Your task to perform on an android device: Empty the shopping cart on ebay.com. Image 0: 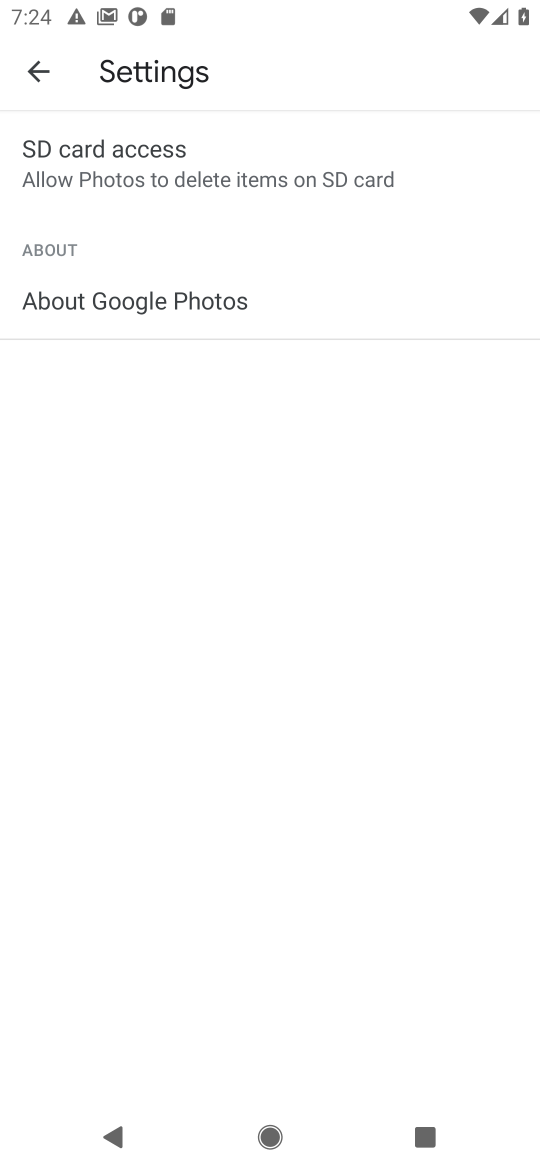
Step 0: press home button
Your task to perform on an android device: Empty the shopping cart on ebay.com. Image 1: 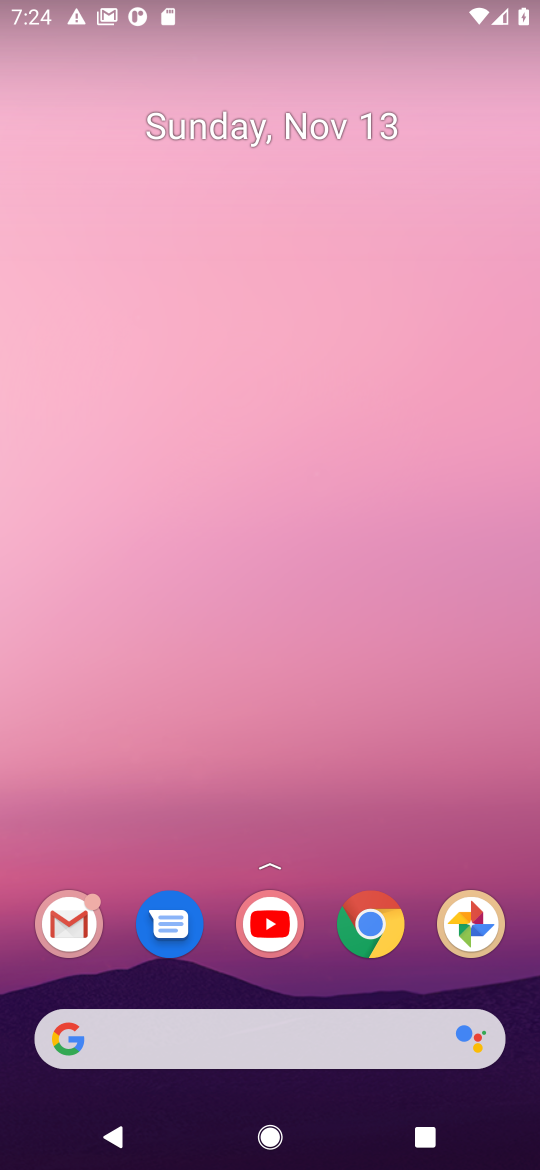
Step 1: click (374, 931)
Your task to perform on an android device: Empty the shopping cart on ebay.com. Image 2: 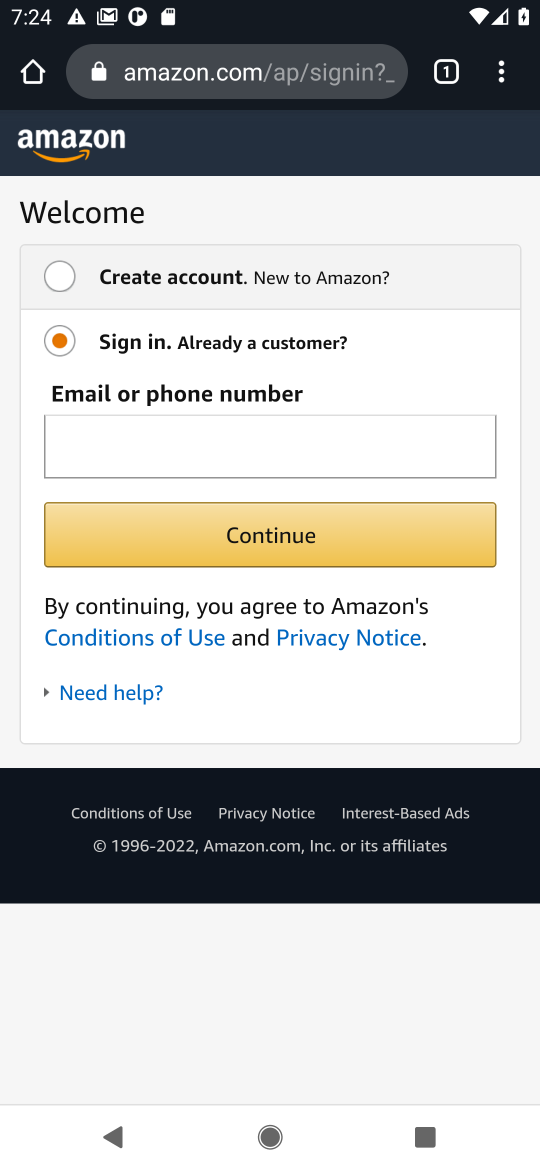
Step 2: click (244, 78)
Your task to perform on an android device: Empty the shopping cart on ebay.com. Image 3: 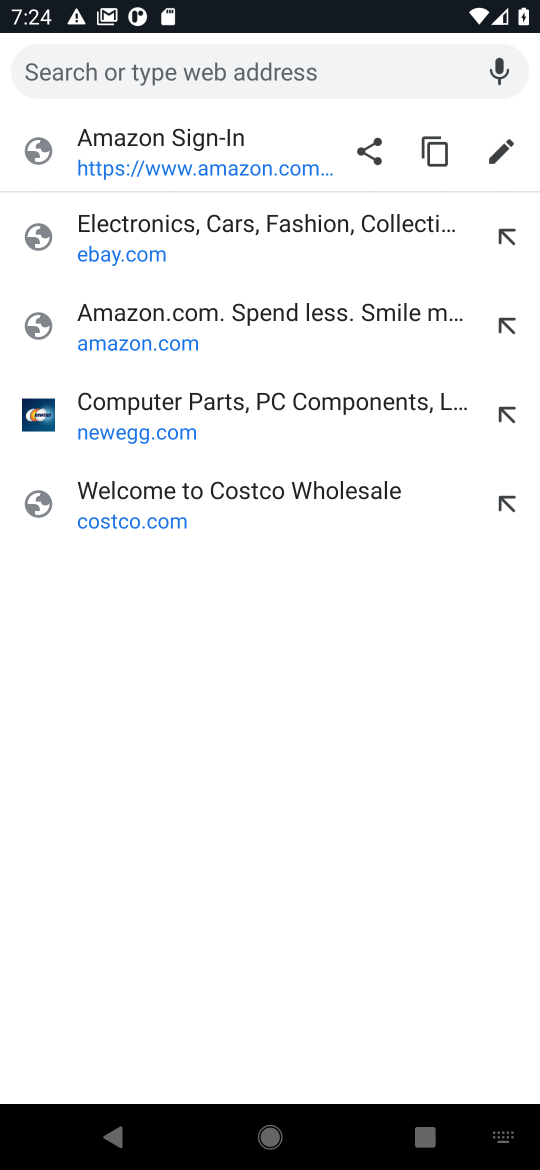
Step 3: click (131, 253)
Your task to perform on an android device: Empty the shopping cart on ebay.com. Image 4: 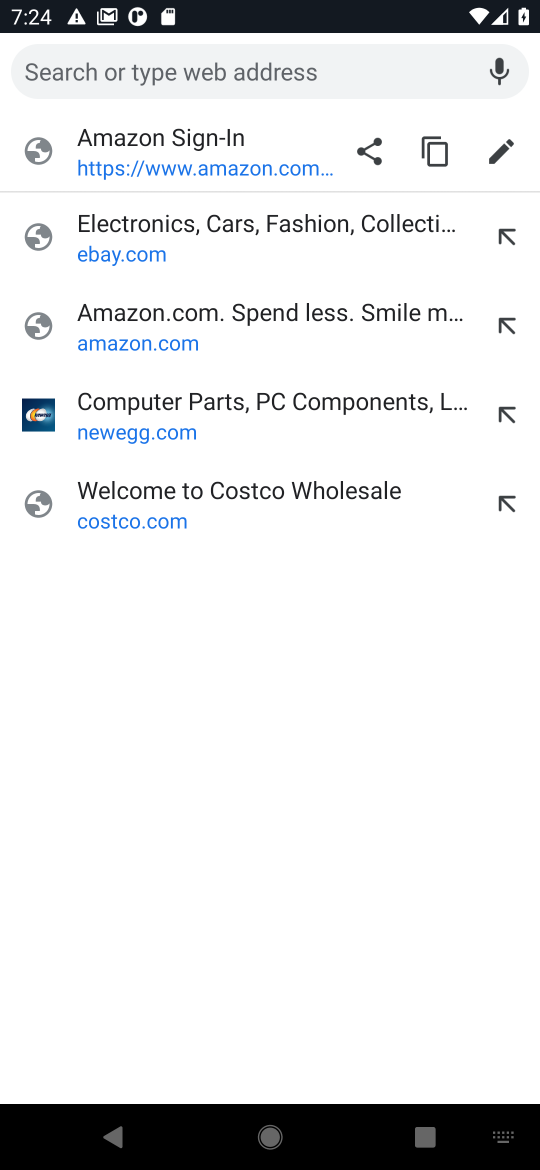
Step 4: click (131, 256)
Your task to perform on an android device: Empty the shopping cart on ebay.com. Image 5: 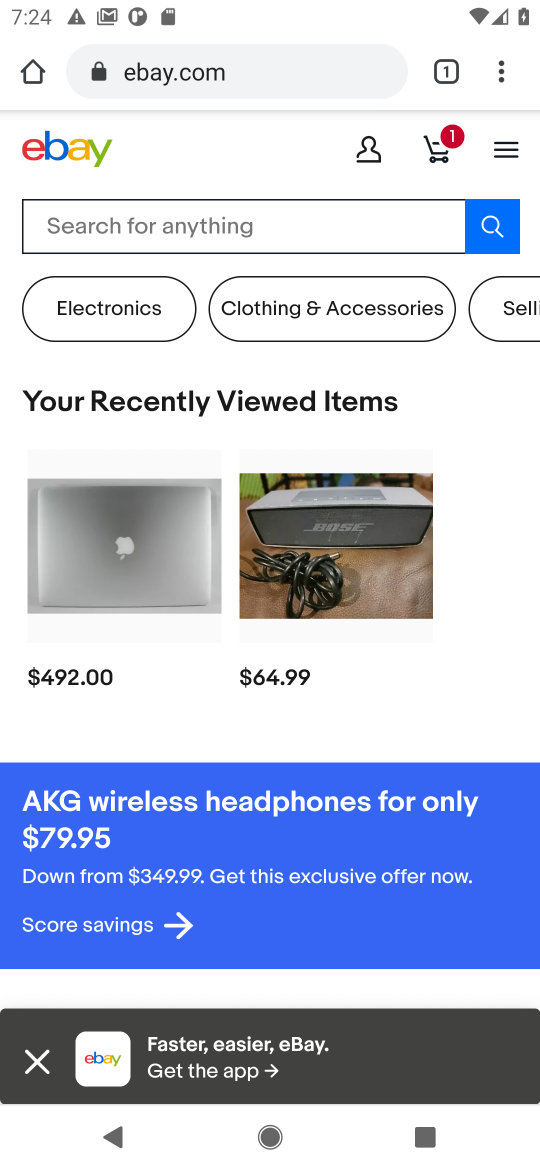
Step 5: click (448, 148)
Your task to perform on an android device: Empty the shopping cart on ebay.com. Image 6: 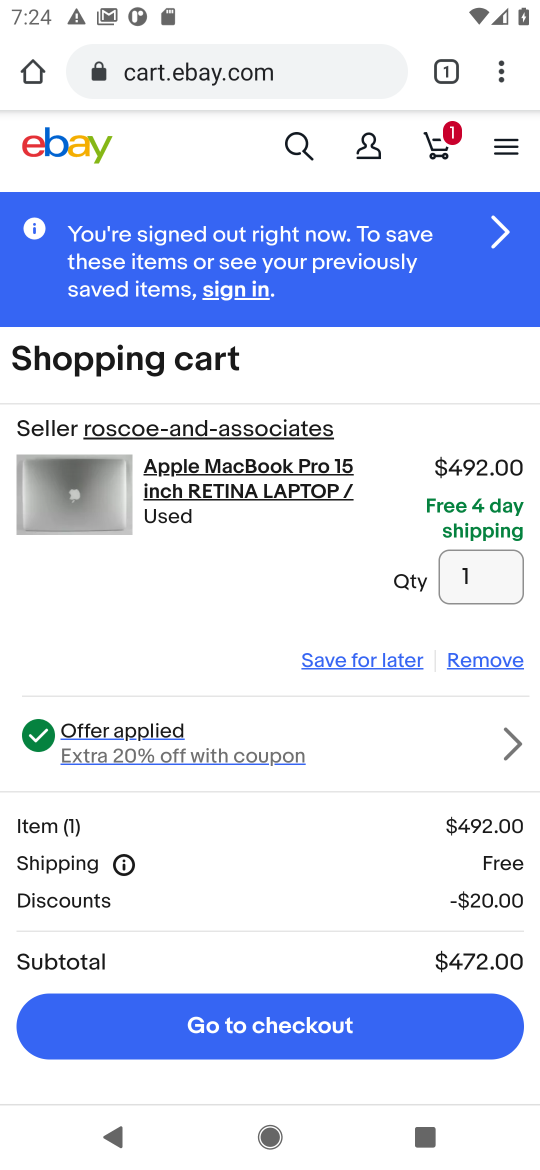
Step 6: click (495, 655)
Your task to perform on an android device: Empty the shopping cart on ebay.com. Image 7: 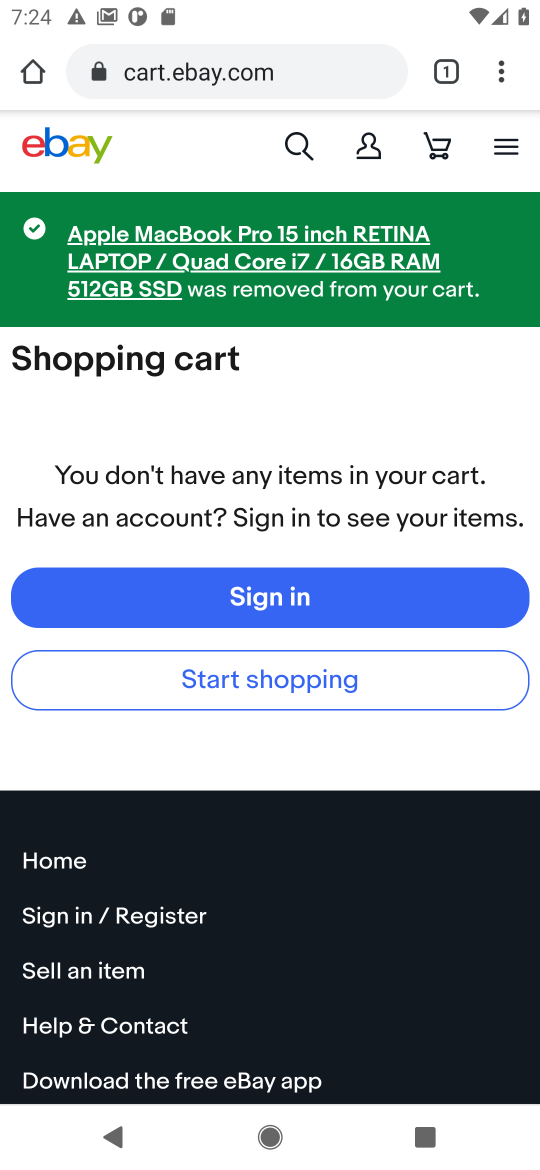
Step 7: task complete